Your task to perform on an android device: When is my next meeting? Image 0: 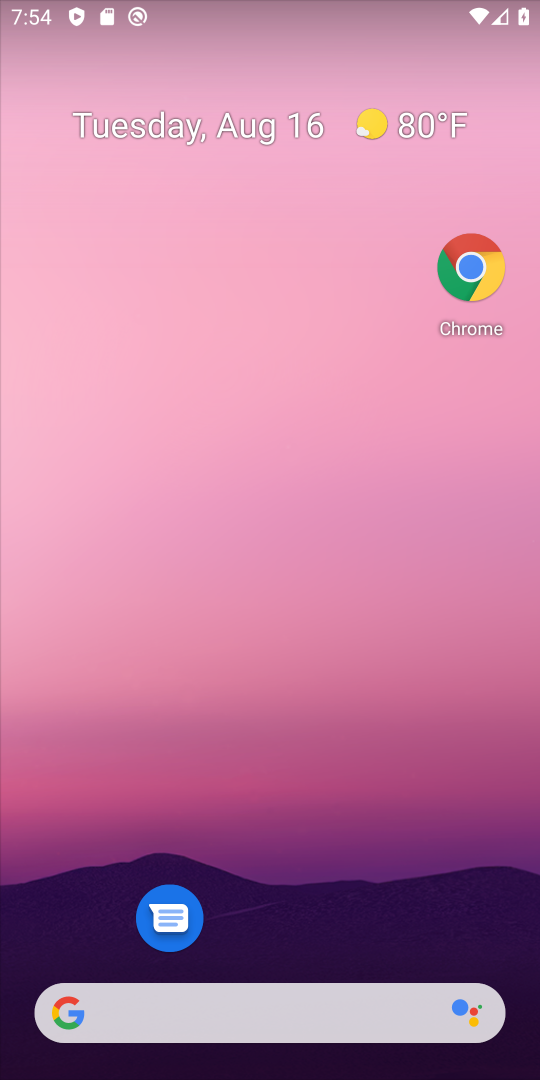
Step 0: drag from (250, 956) to (282, 104)
Your task to perform on an android device: When is my next meeting? Image 1: 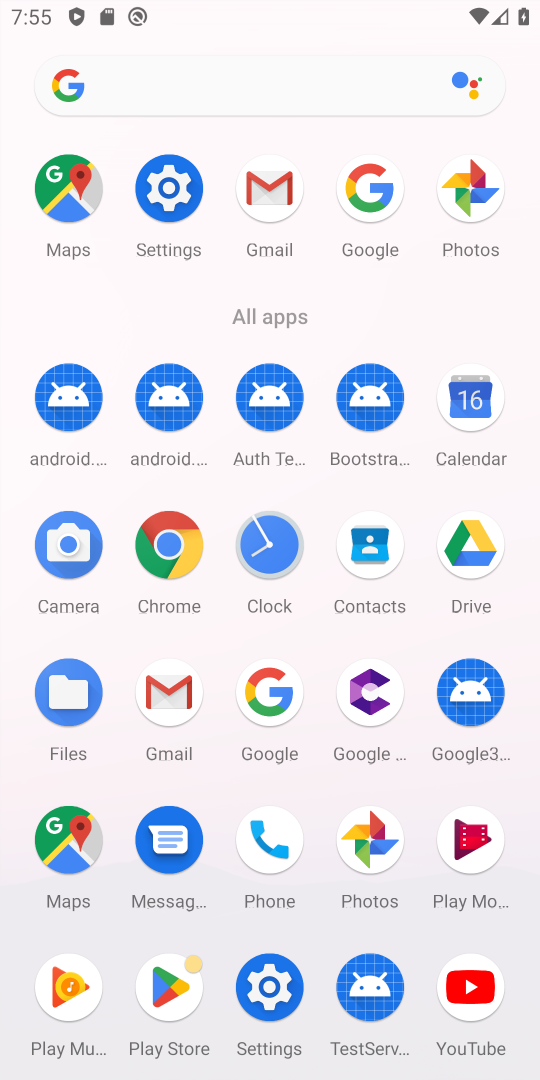
Step 1: click (481, 448)
Your task to perform on an android device: When is my next meeting? Image 2: 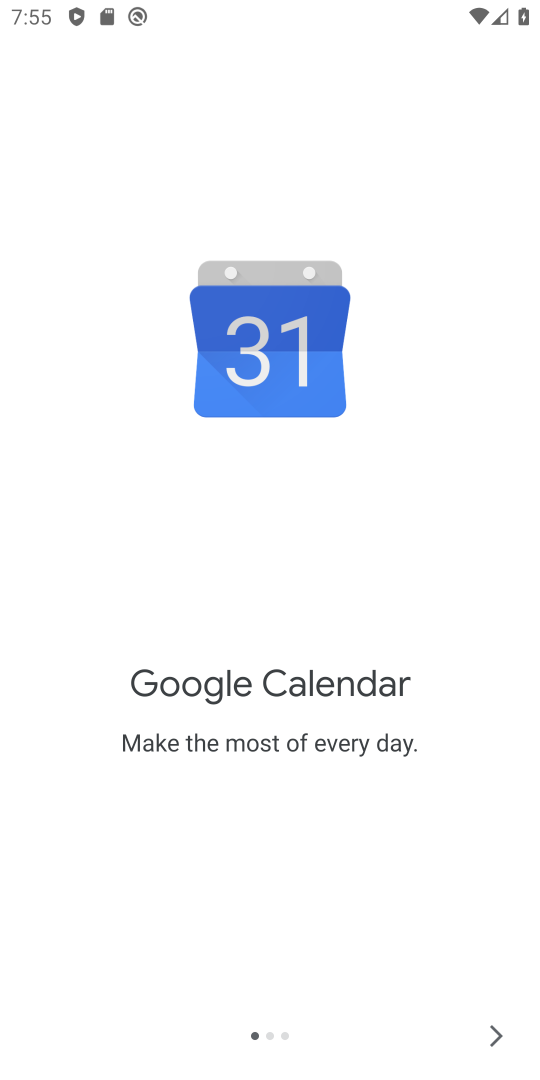
Step 2: click (499, 1029)
Your task to perform on an android device: When is my next meeting? Image 3: 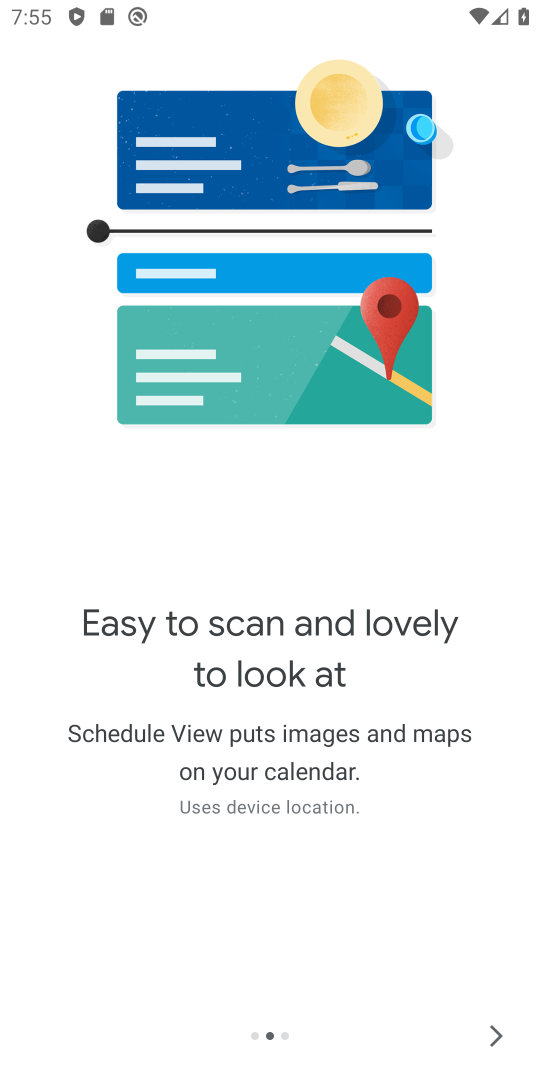
Step 3: click (493, 1024)
Your task to perform on an android device: When is my next meeting? Image 4: 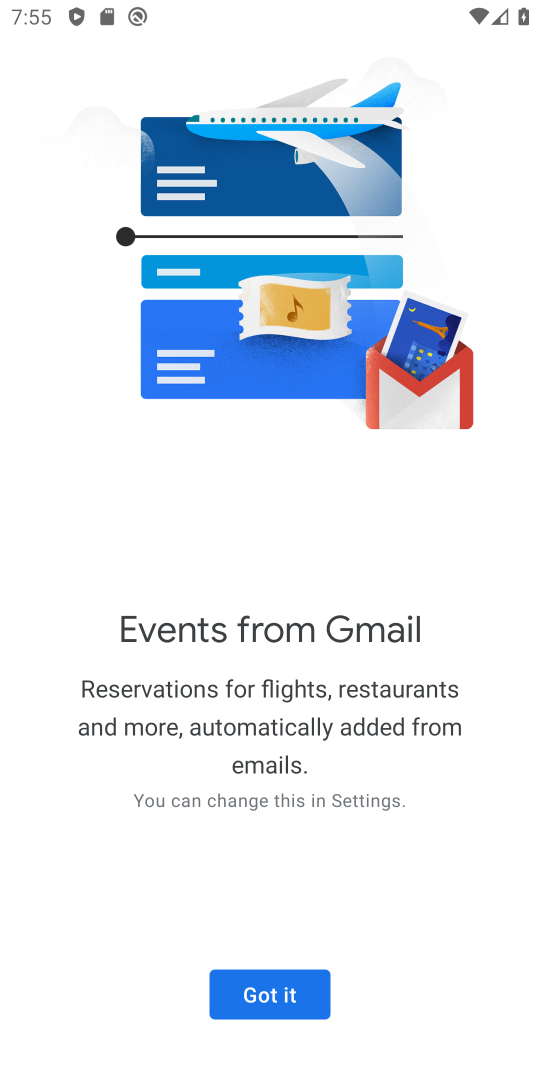
Step 4: click (292, 987)
Your task to perform on an android device: When is my next meeting? Image 5: 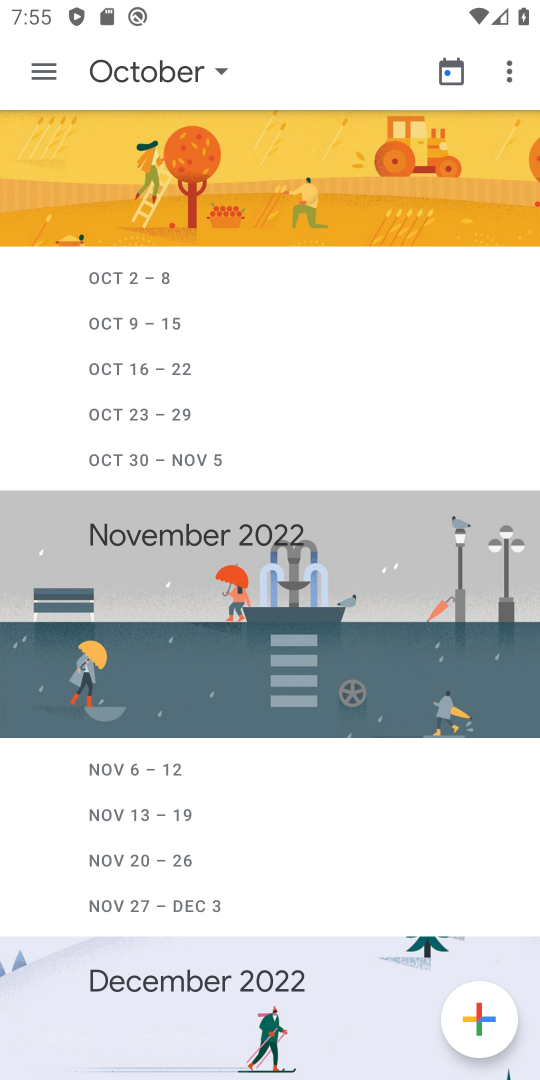
Step 5: click (64, 74)
Your task to perform on an android device: When is my next meeting? Image 6: 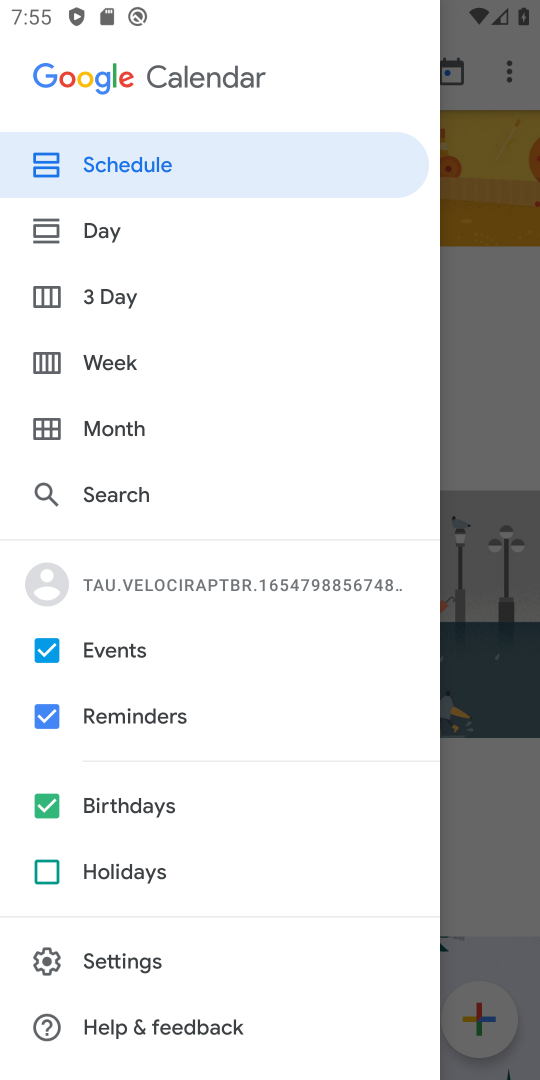
Step 6: click (50, 809)
Your task to perform on an android device: When is my next meeting? Image 7: 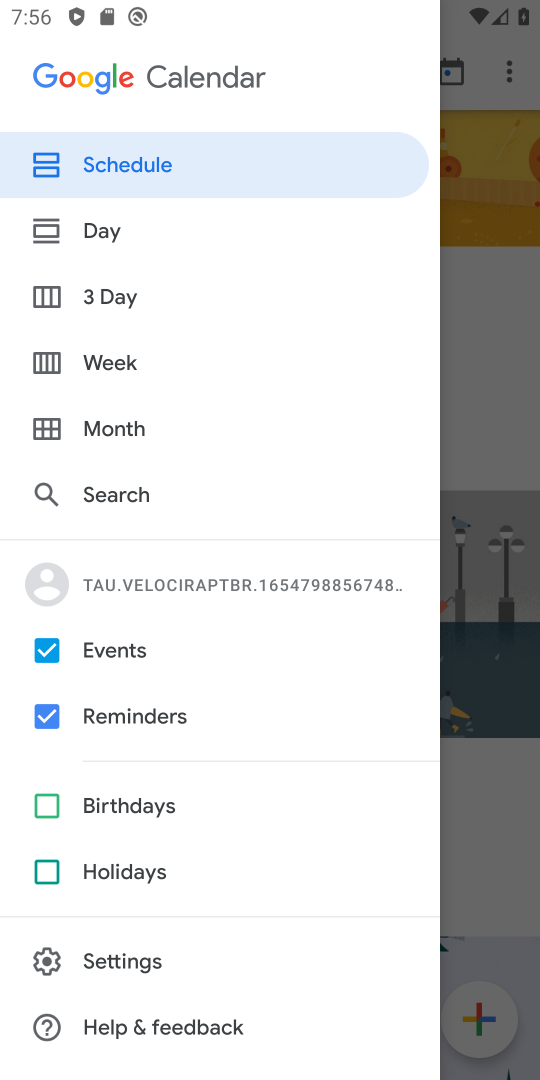
Step 7: click (480, 529)
Your task to perform on an android device: When is my next meeting? Image 8: 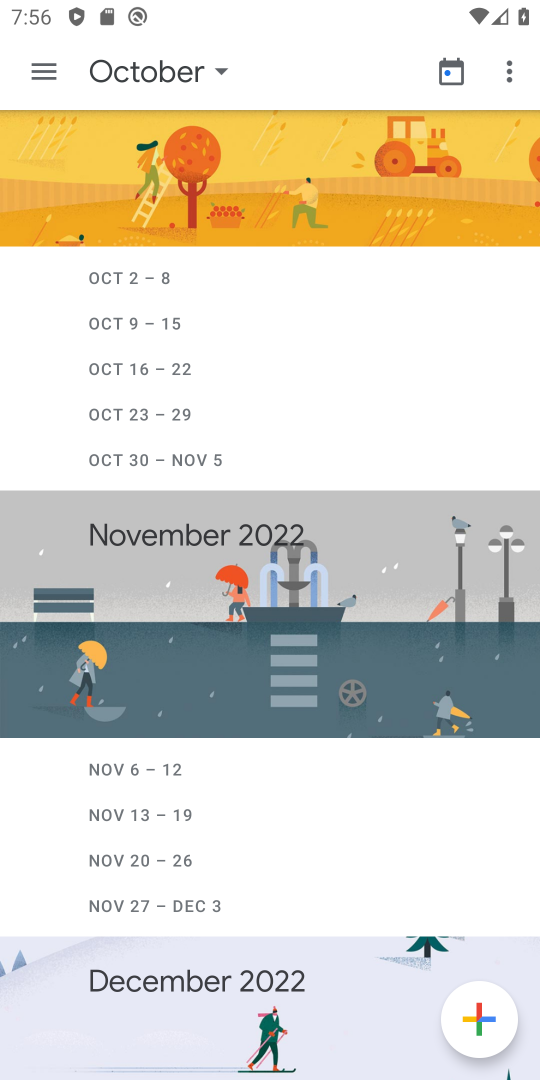
Step 8: task complete